Your task to perform on an android device: set an alarm Image 0: 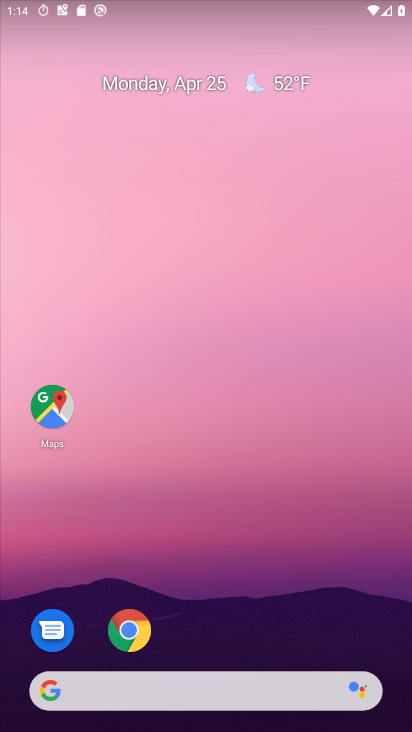
Step 0: drag from (177, 655) to (163, 386)
Your task to perform on an android device: set an alarm Image 1: 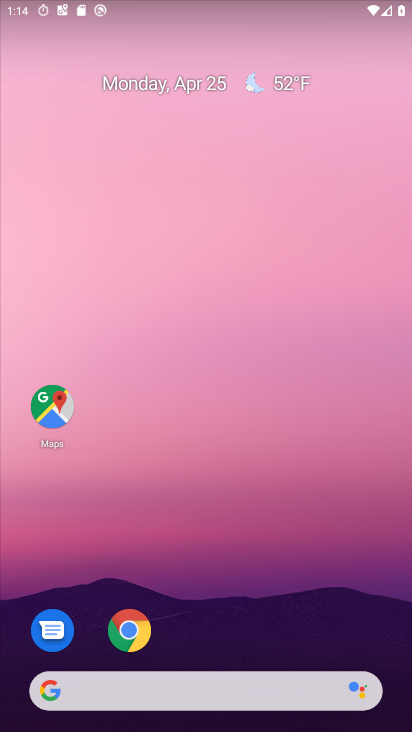
Step 1: drag from (206, 492) to (270, 50)
Your task to perform on an android device: set an alarm Image 2: 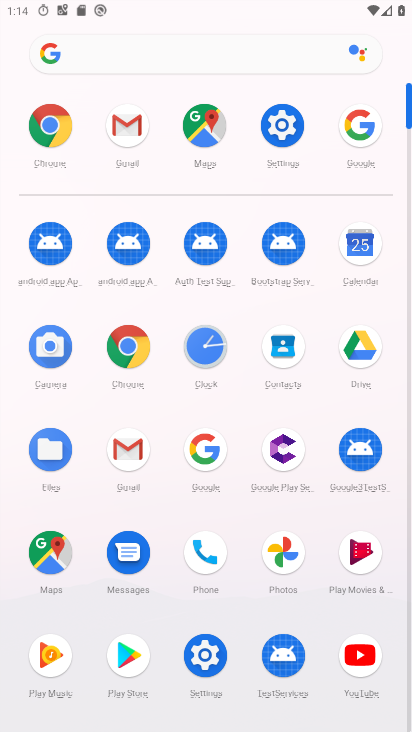
Step 2: drag from (177, 476) to (213, 82)
Your task to perform on an android device: set an alarm Image 3: 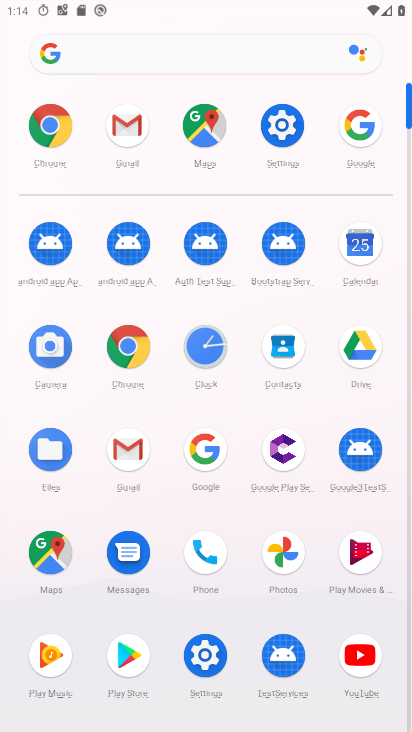
Step 3: click (209, 345)
Your task to perform on an android device: set an alarm Image 4: 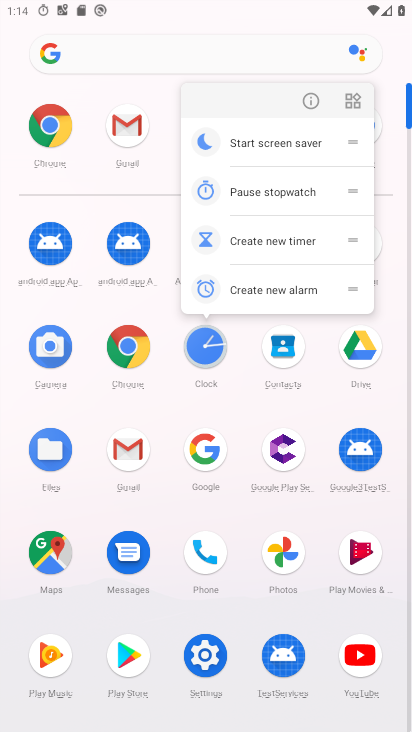
Step 4: click (316, 96)
Your task to perform on an android device: set an alarm Image 5: 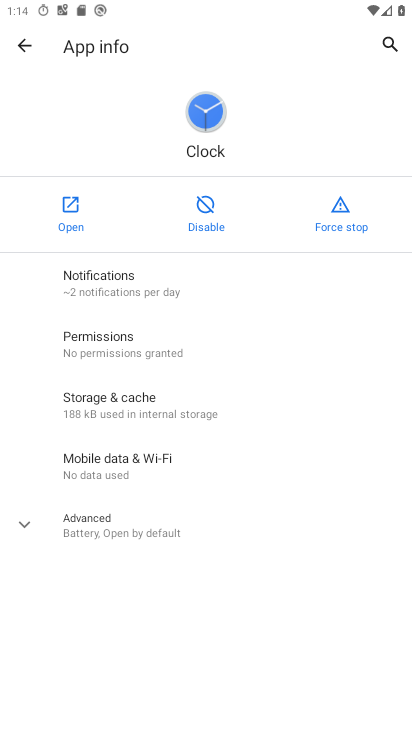
Step 5: click (60, 221)
Your task to perform on an android device: set an alarm Image 6: 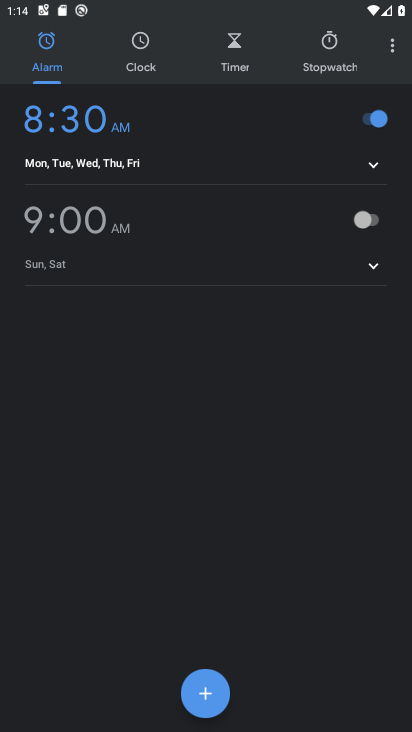
Step 6: click (301, 60)
Your task to perform on an android device: set an alarm Image 7: 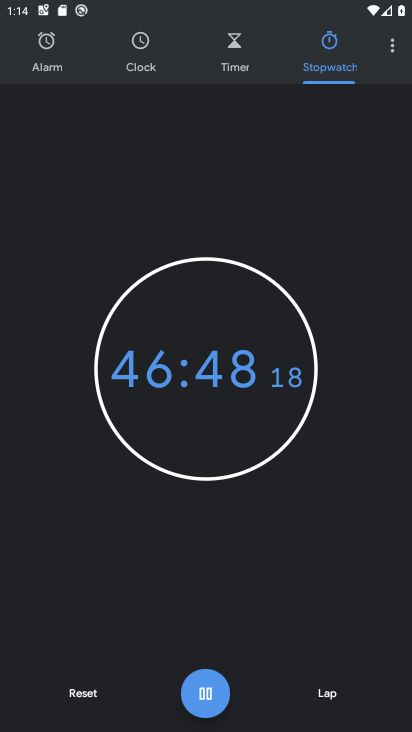
Step 7: click (248, 62)
Your task to perform on an android device: set an alarm Image 8: 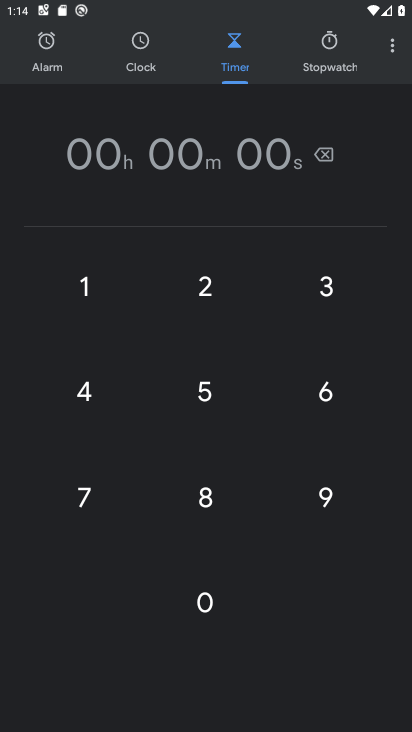
Step 8: click (151, 67)
Your task to perform on an android device: set an alarm Image 9: 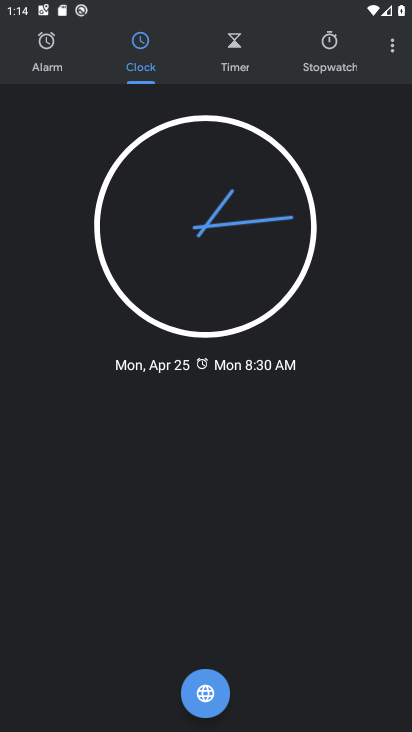
Step 9: click (390, 45)
Your task to perform on an android device: set an alarm Image 10: 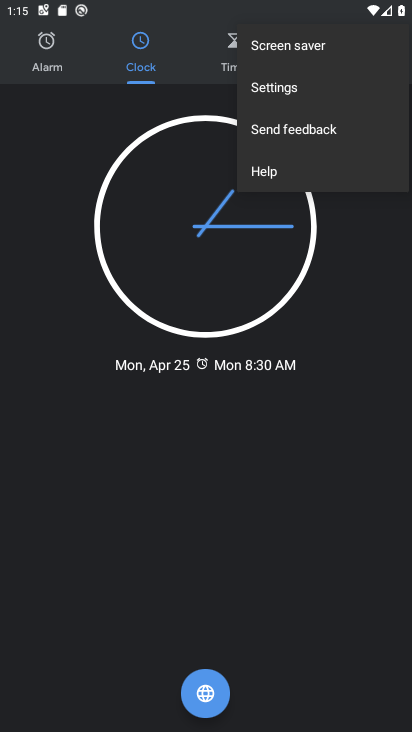
Step 10: click (190, 109)
Your task to perform on an android device: set an alarm Image 11: 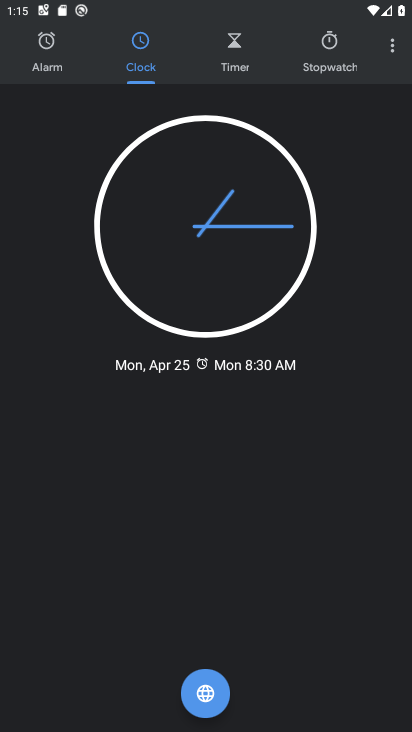
Step 11: click (42, 54)
Your task to perform on an android device: set an alarm Image 12: 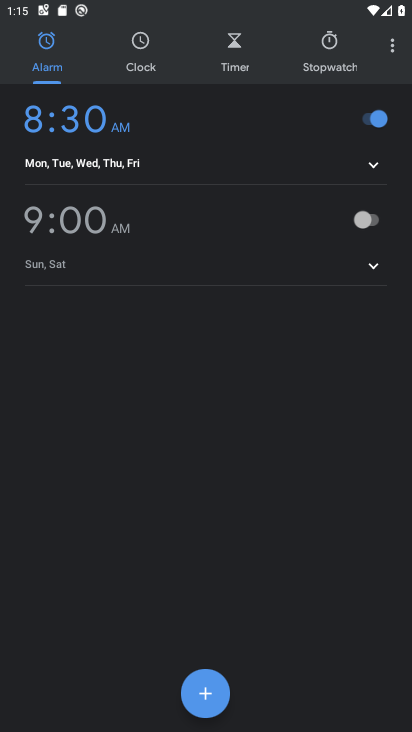
Step 12: click (375, 227)
Your task to perform on an android device: set an alarm Image 13: 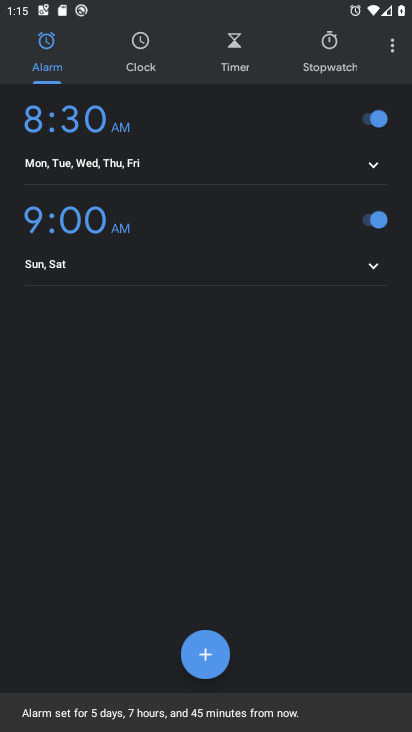
Step 13: task complete